Your task to perform on an android device: open the mobile data screen to see how much data has been used Image 0: 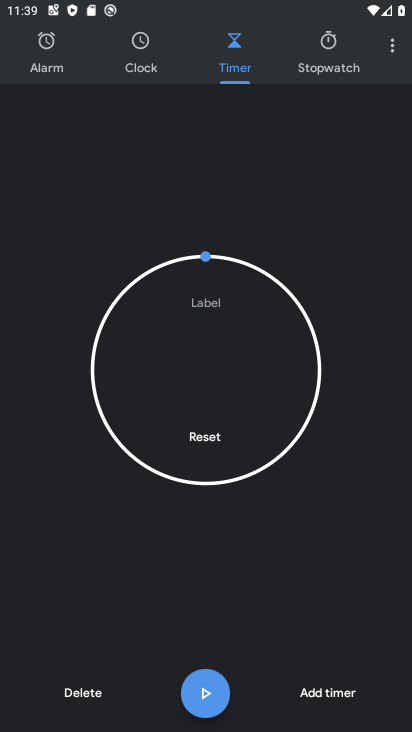
Step 0: press home button
Your task to perform on an android device: open the mobile data screen to see how much data has been used Image 1: 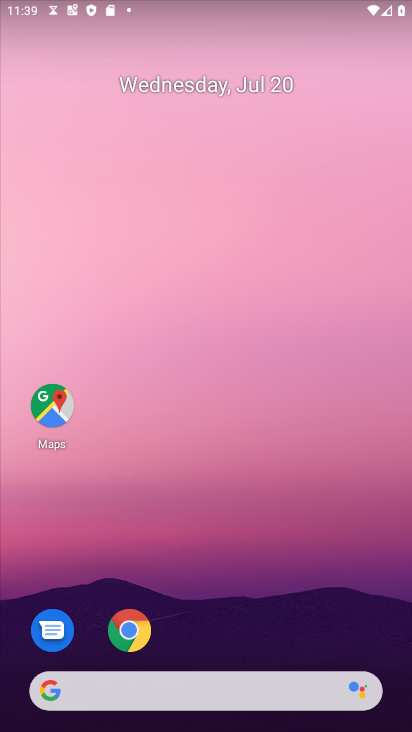
Step 1: drag from (9, 714) to (88, 258)
Your task to perform on an android device: open the mobile data screen to see how much data has been used Image 2: 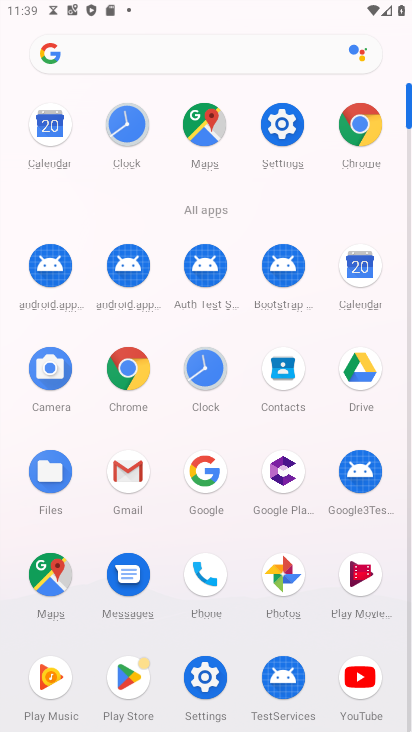
Step 2: click (213, 679)
Your task to perform on an android device: open the mobile data screen to see how much data has been used Image 3: 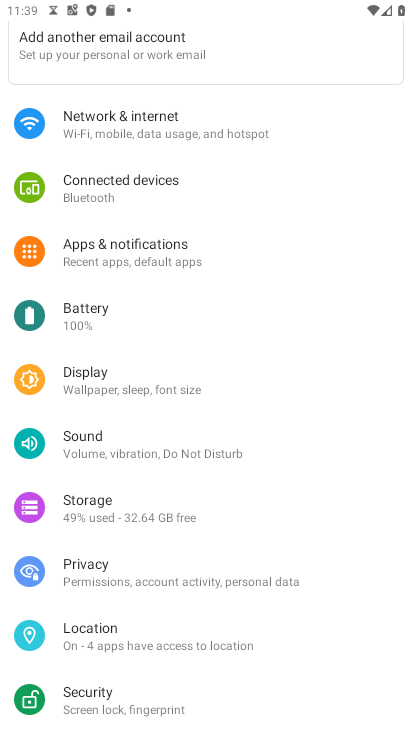
Step 3: click (144, 112)
Your task to perform on an android device: open the mobile data screen to see how much data has been used Image 4: 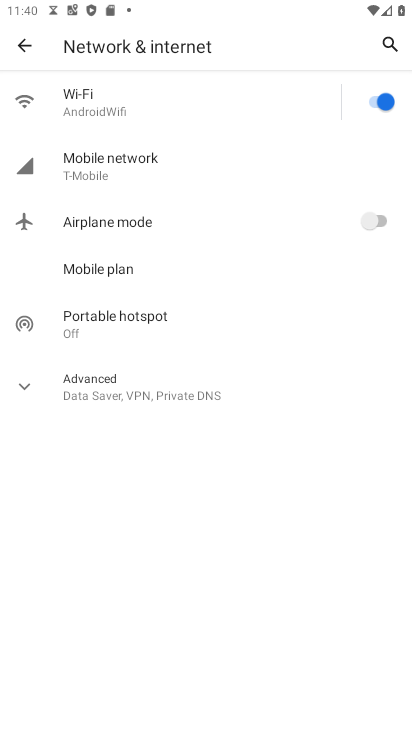
Step 4: click (125, 166)
Your task to perform on an android device: open the mobile data screen to see how much data has been used Image 5: 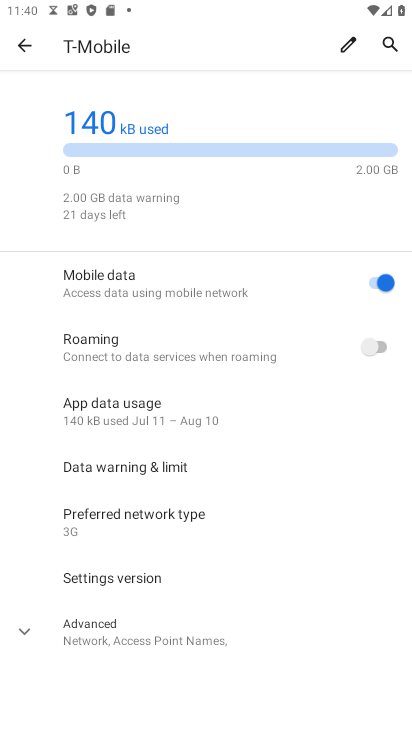
Step 5: task complete